Your task to perform on an android device: When is my next appointment? Image 0: 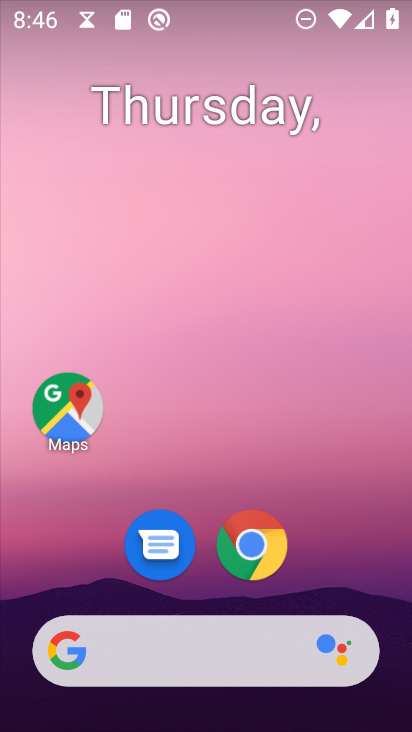
Step 0: drag from (341, 534) to (240, 170)
Your task to perform on an android device: When is my next appointment? Image 1: 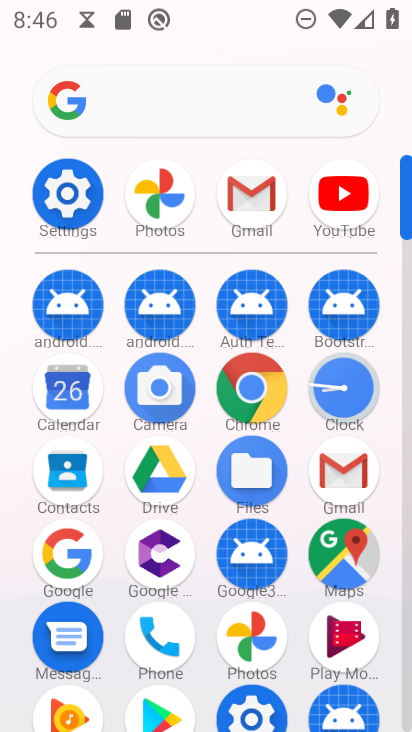
Step 1: click (67, 393)
Your task to perform on an android device: When is my next appointment? Image 2: 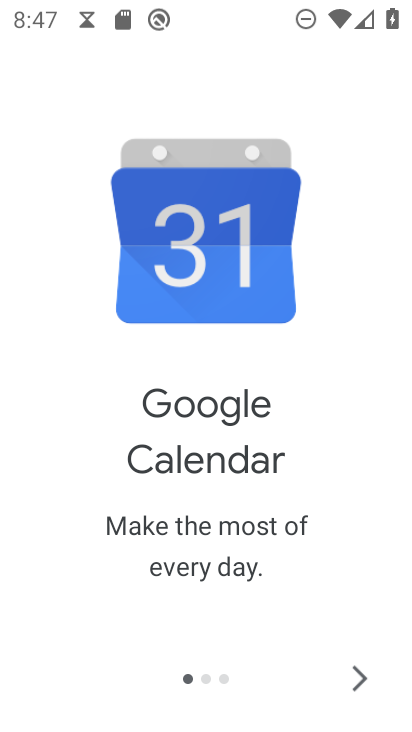
Step 2: click (367, 679)
Your task to perform on an android device: When is my next appointment? Image 3: 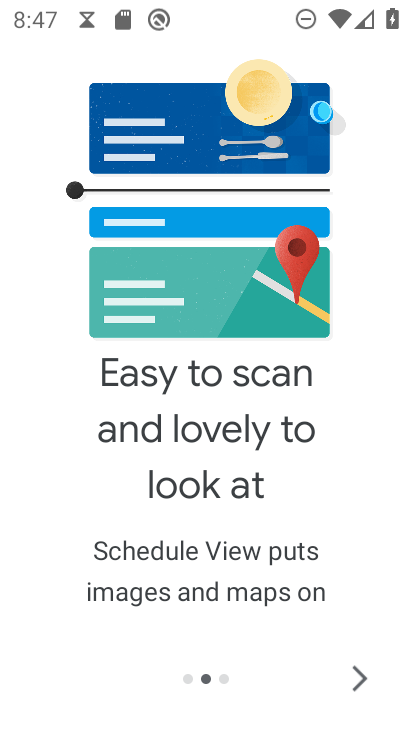
Step 3: click (367, 679)
Your task to perform on an android device: When is my next appointment? Image 4: 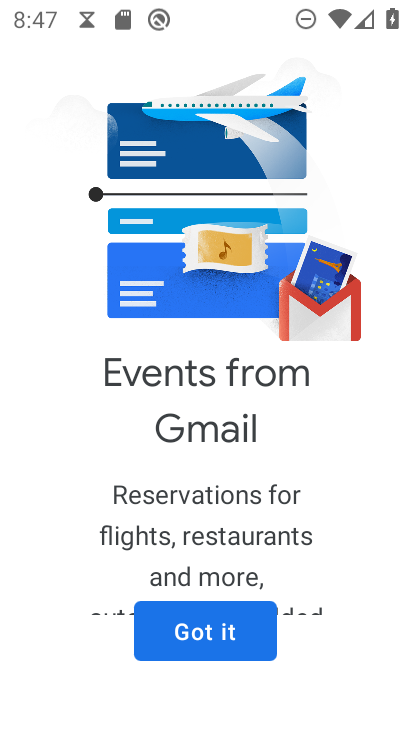
Step 4: click (220, 638)
Your task to perform on an android device: When is my next appointment? Image 5: 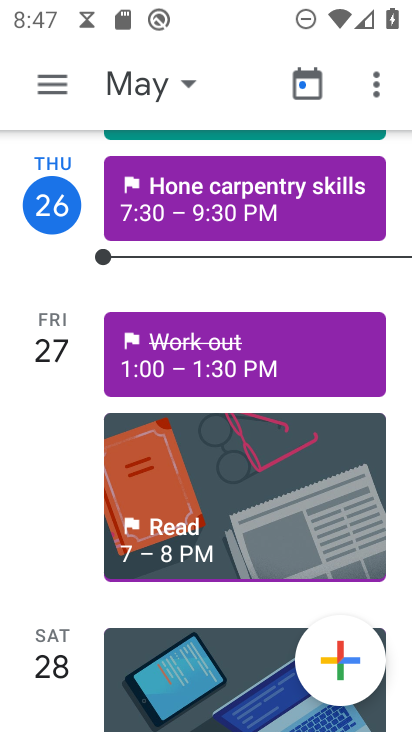
Step 5: click (186, 81)
Your task to perform on an android device: When is my next appointment? Image 6: 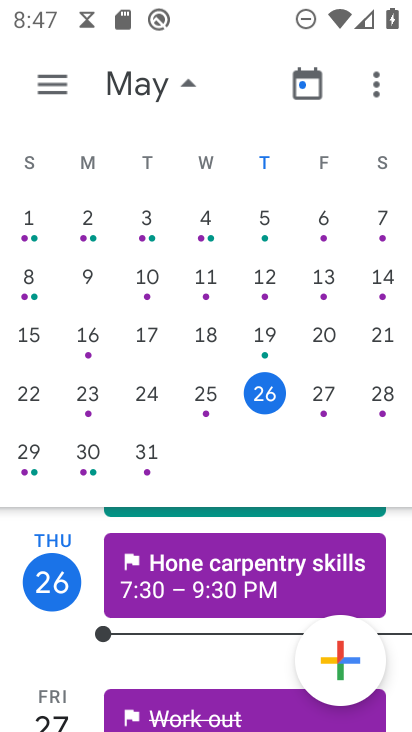
Step 6: click (324, 401)
Your task to perform on an android device: When is my next appointment? Image 7: 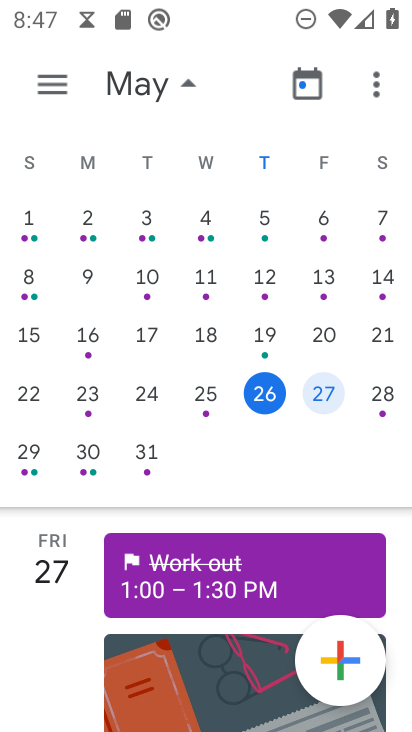
Step 7: click (53, 95)
Your task to perform on an android device: When is my next appointment? Image 8: 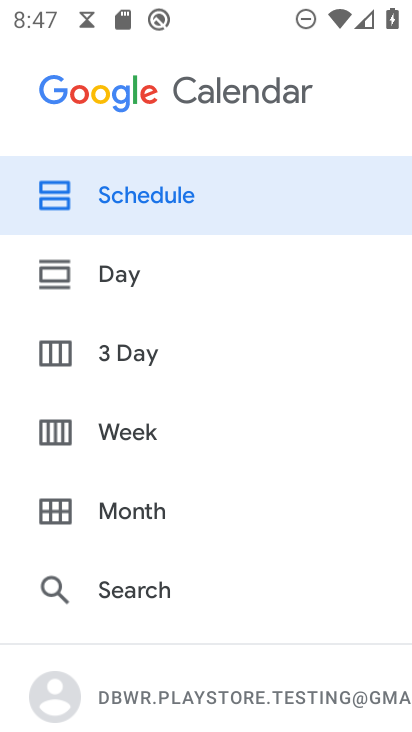
Step 8: click (132, 184)
Your task to perform on an android device: When is my next appointment? Image 9: 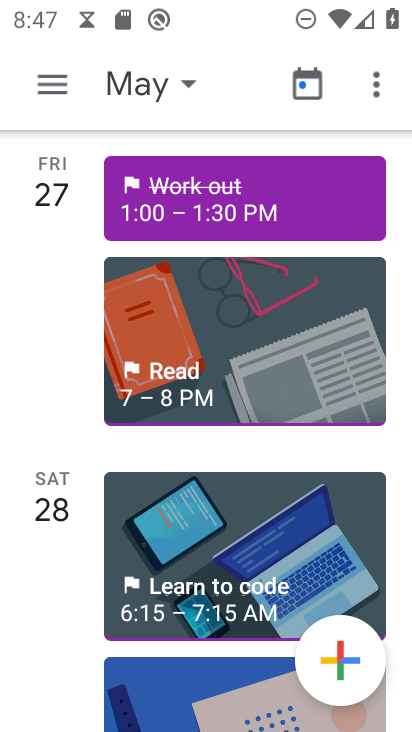
Step 9: task complete